Your task to perform on an android device: turn off wifi Image 0: 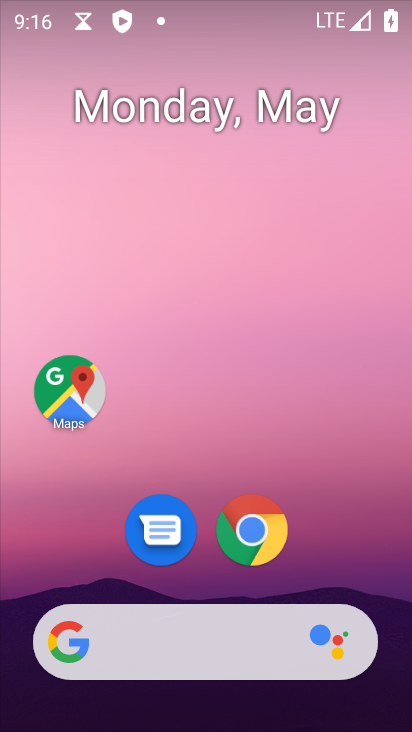
Step 0: drag from (329, 540) to (263, 18)
Your task to perform on an android device: turn off wifi Image 1: 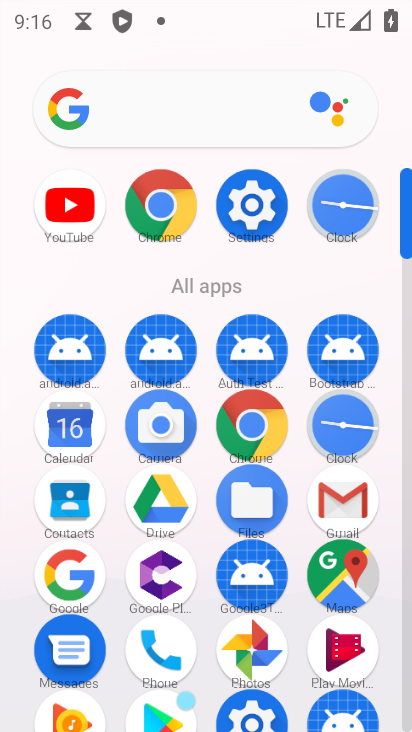
Step 1: click (246, 203)
Your task to perform on an android device: turn off wifi Image 2: 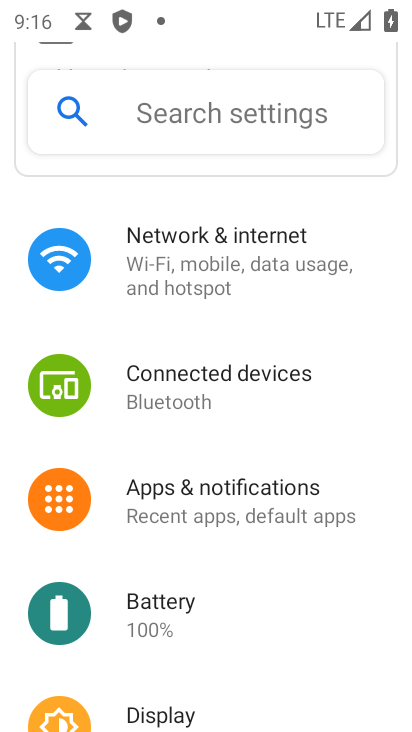
Step 2: drag from (254, 259) to (264, 496)
Your task to perform on an android device: turn off wifi Image 3: 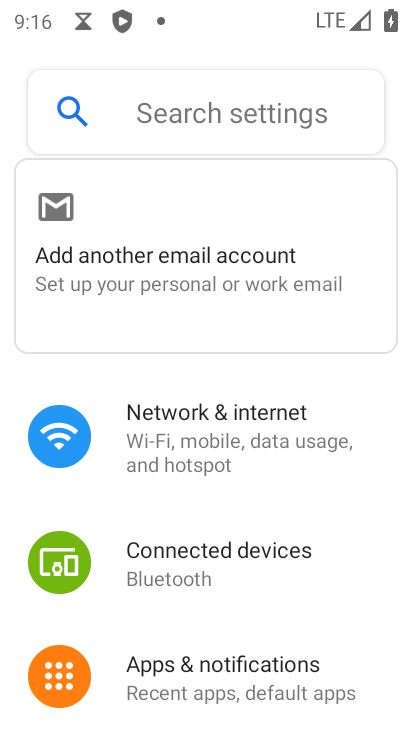
Step 3: click (242, 453)
Your task to perform on an android device: turn off wifi Image 4: 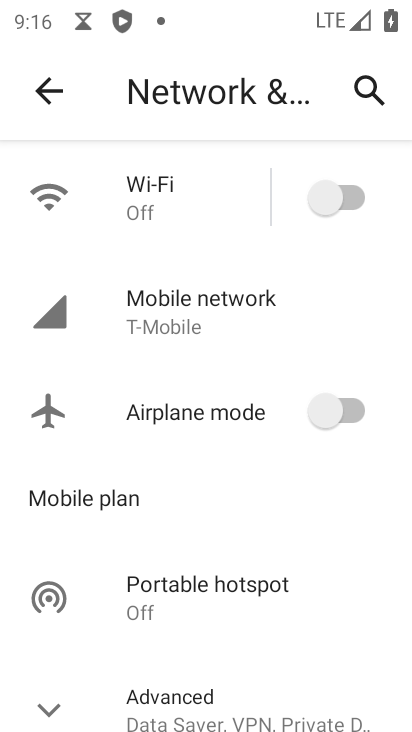
Step 4: task complete